Your task to perform on an android device: refresh tabs in the chrome app Image 0: 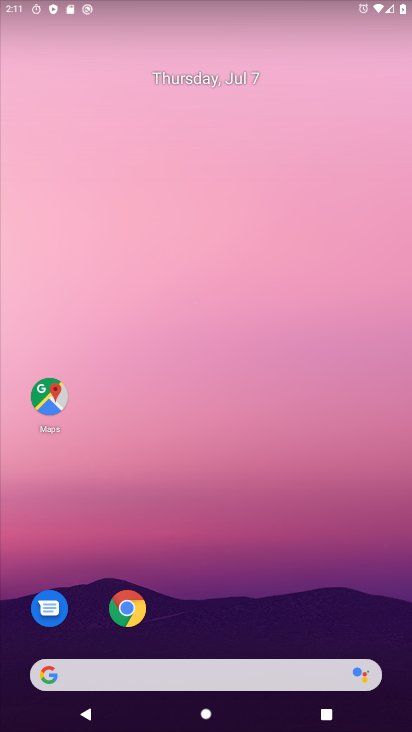
Step 0: click (122, 604)
Your task to perform on an android device: refresh tabs in the chrome app Image 1: 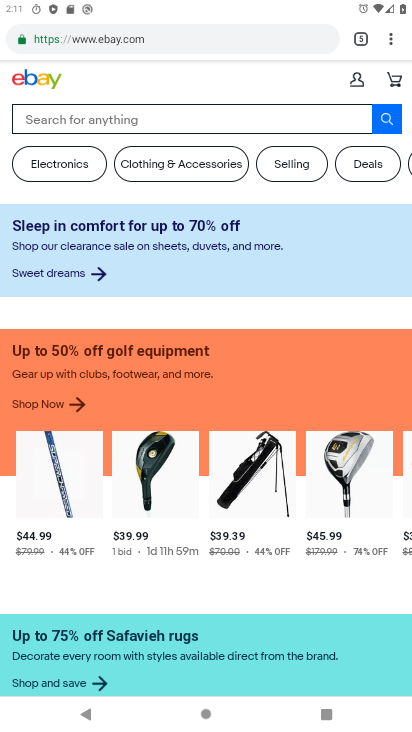
Step 1: click (392, 43)
Your task to perform on an android device: refresh tabs in the chrome app Image 2: 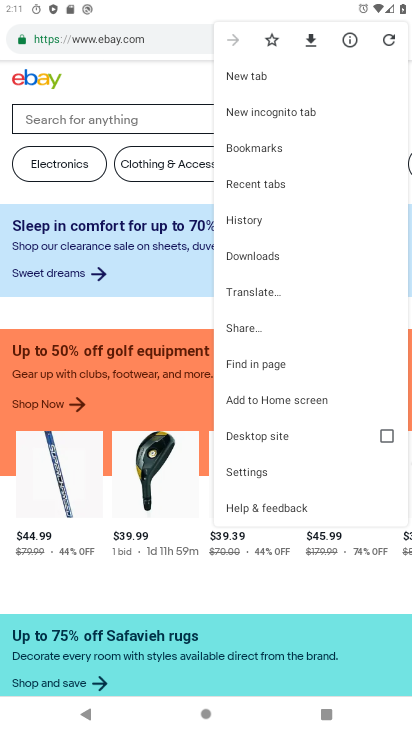
Step 2: click (386, 37)
Your task to perform on an android device: refresh tabs in the chrome app Image 3: 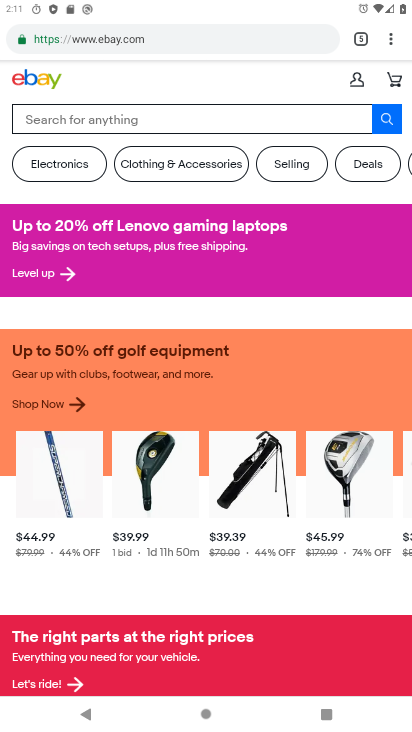
Step 3: task complete